Your task to perform on an android device: Go to Yahoo.com Image 0: 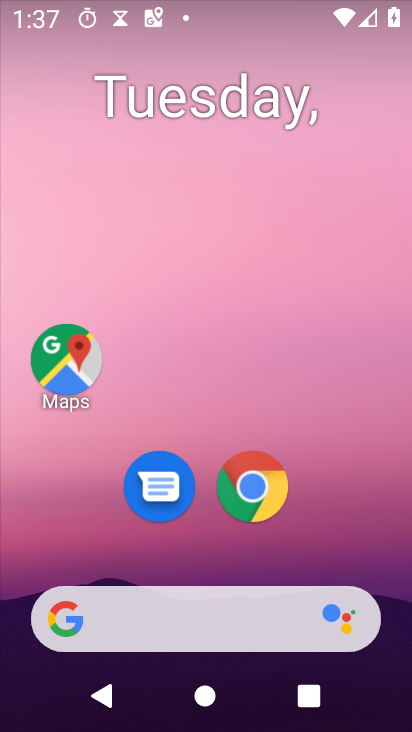
Step 0: click (243, 499)
Your task to perform on an android device: Go to Yahoo.com Image 1: 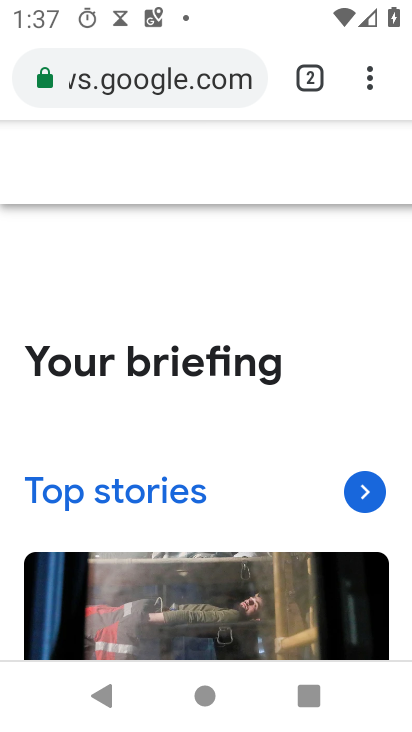
Step 1: click (169, 71)
Your task to perform on an android device: Go to Yahoo.com Image 2: 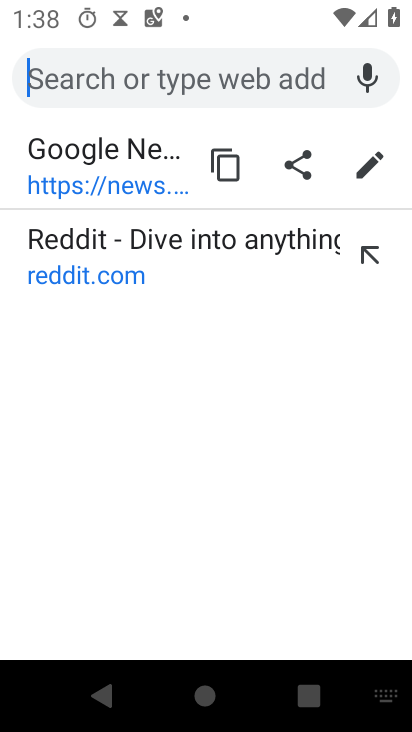
Step 2: type "yahoo.com"
Your task to perform on an android device: Go to Yahoo.com Image 3: 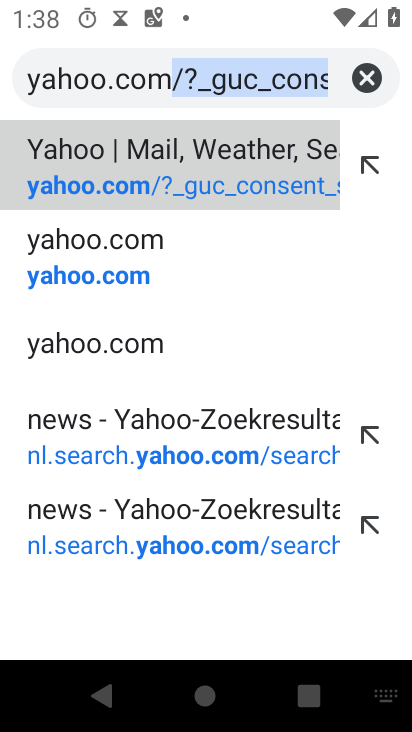
Step 3: click (116, 277)
Your task to perform on an android device: Go to Yahoo.com Image 4: 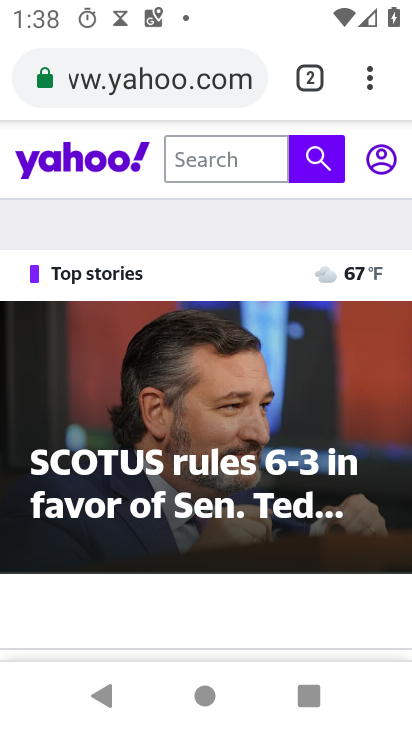
Step 4: task complete